Your task to perform on an android device: Open Android settings Image 0: 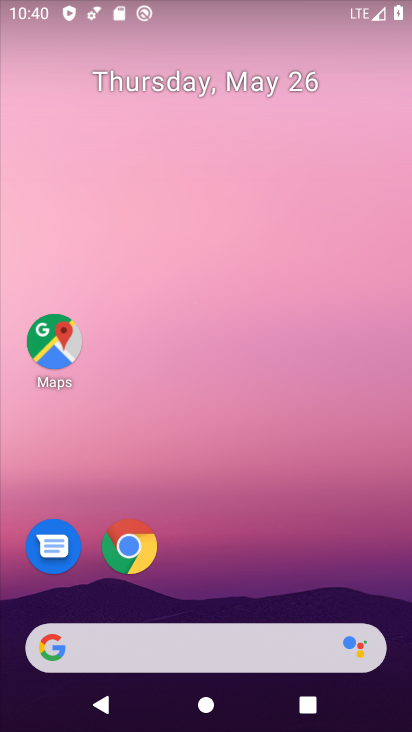
Step 0: drag from (210, 547) to (256, 64)
Your task to perform on an android device: Open Android settings Image 1: 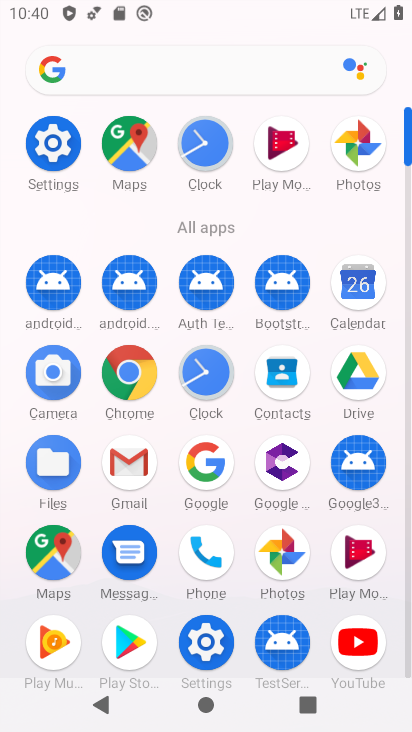
Step 1: click (37, 165)
Your task to perform on an android device: Open Android settings Image 2: 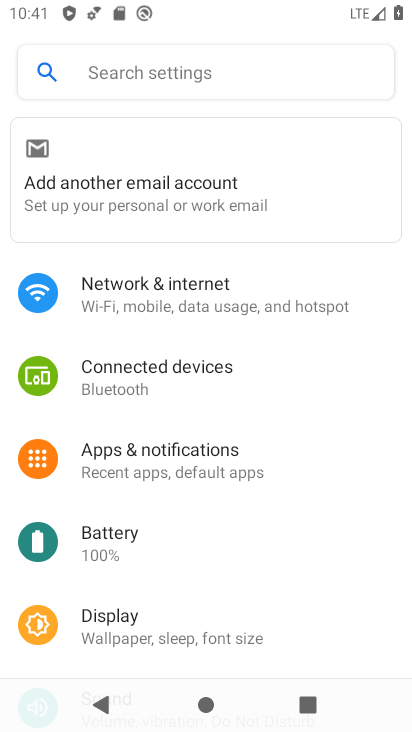
Step 2: task complete